Your task to perform on an android device: turn on the 12-hour format for clock Image 0: 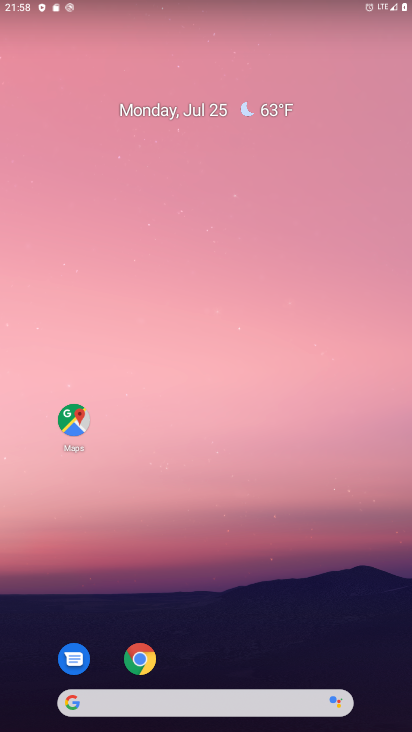
Step 0: drag from (202, 727) to (184, 31)
Your task to perform on an android device: turn on the 12-hour format for clock Image 1: 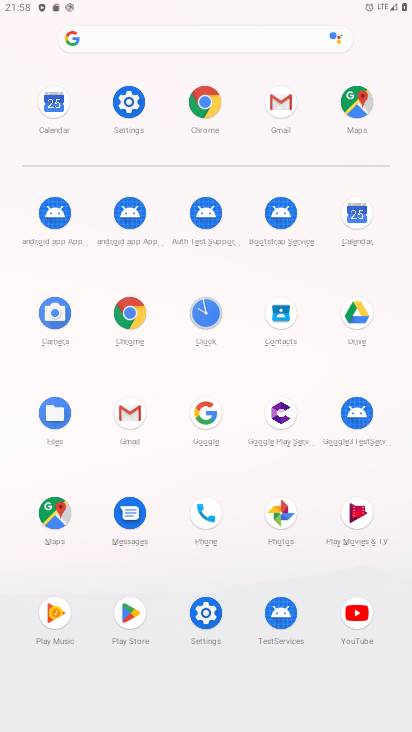
Step 1: click (205, 310)
Your task to perform on an android device: turn on the 12-hour format for clock Image 2: 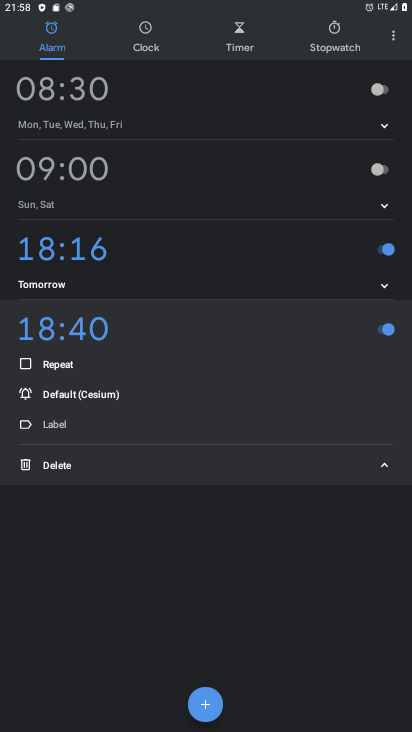
Step 2: click (396, 40)
Your task to perform on an android device: turn on the 12-hour format for clock Image 3: 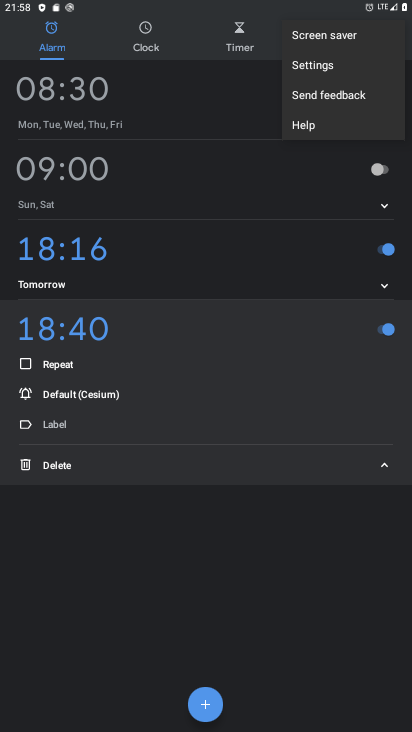
Step 3: click (302, 63)
Your task to perform on an android device: turn on the 12-hour format for clock Image 4: 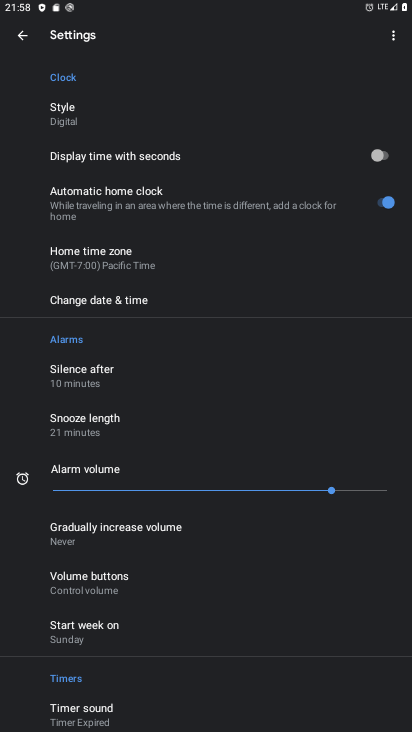
Step 4: click (91, 304)
Your task to perform on an android device: turn on the 12-hour format for clock Image 5: 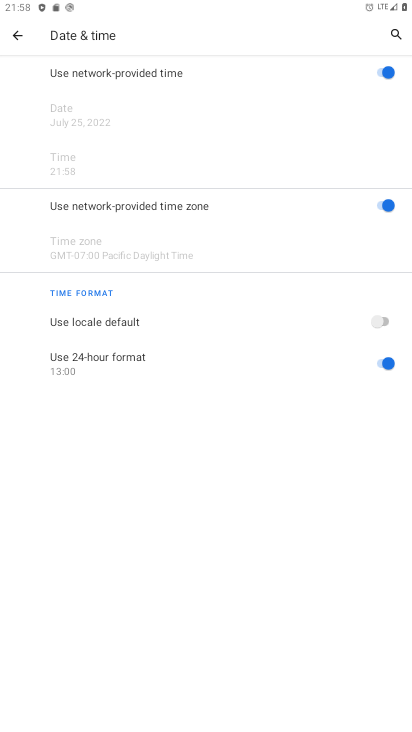
Step 5: click (377, 362)
Your task to perform on an android device: turn on the 12-hour format for clock Image 6: 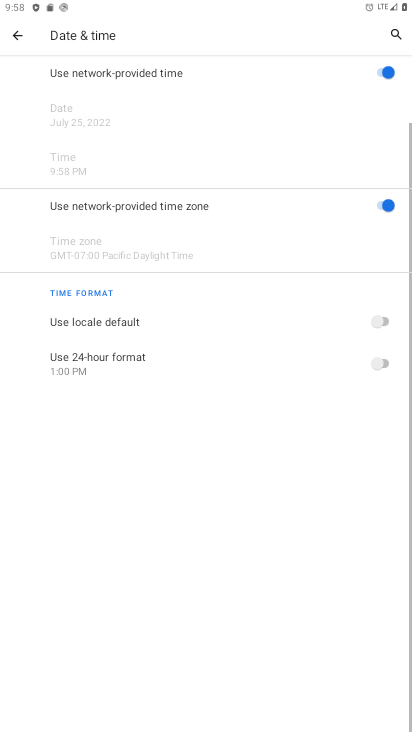
Step 6: click (383, 317)
Your task to perform on an android device: turn on the 12-hour format for clock Image 7: 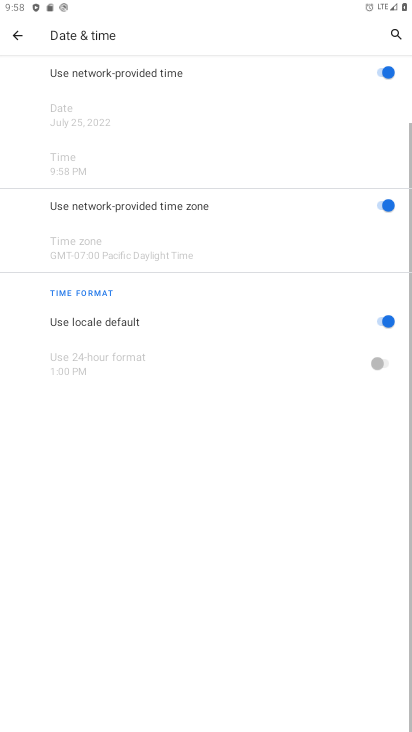
Step 7: task complete